Your task to perform on an android device: Open internet settings Image 0: 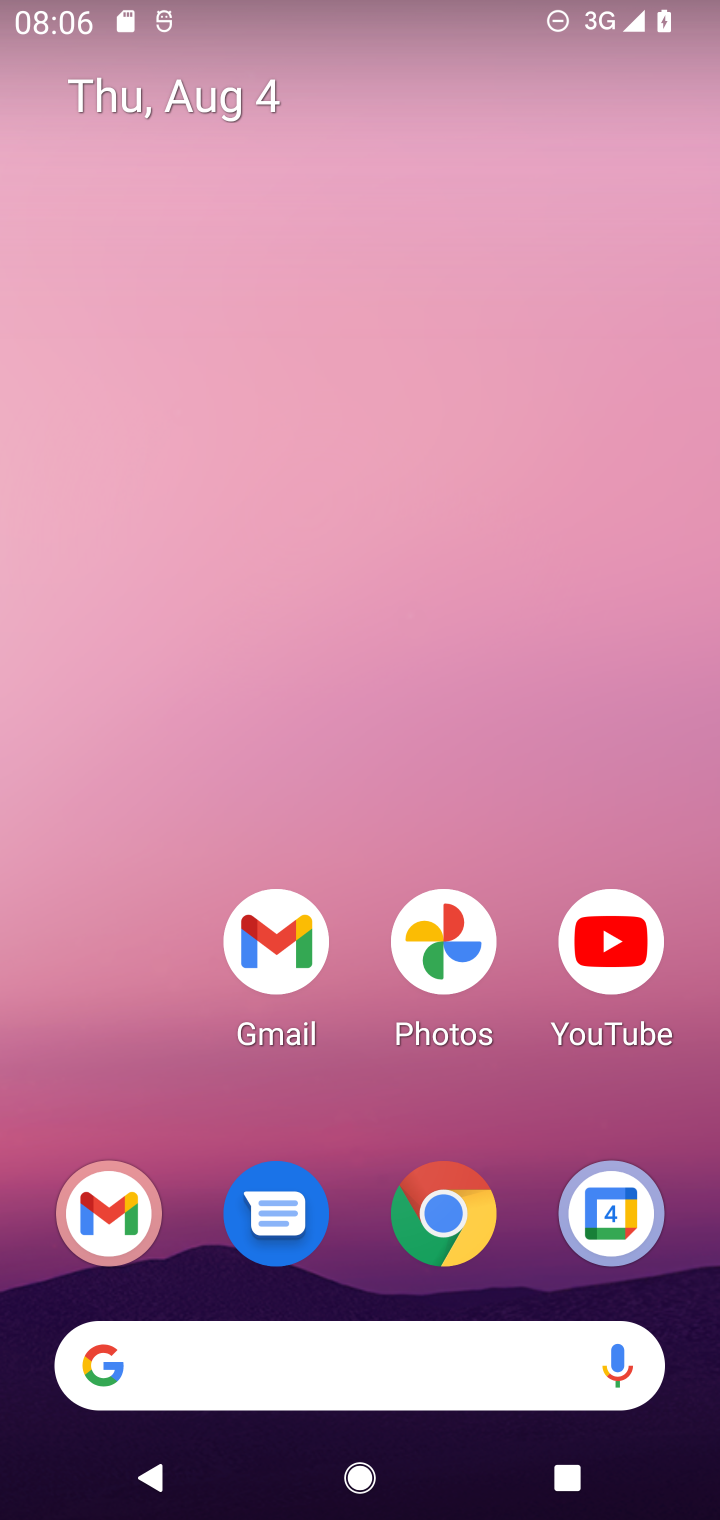
Step 0: press home button
Your task to perform on an android device: Open internet settings Image 1: 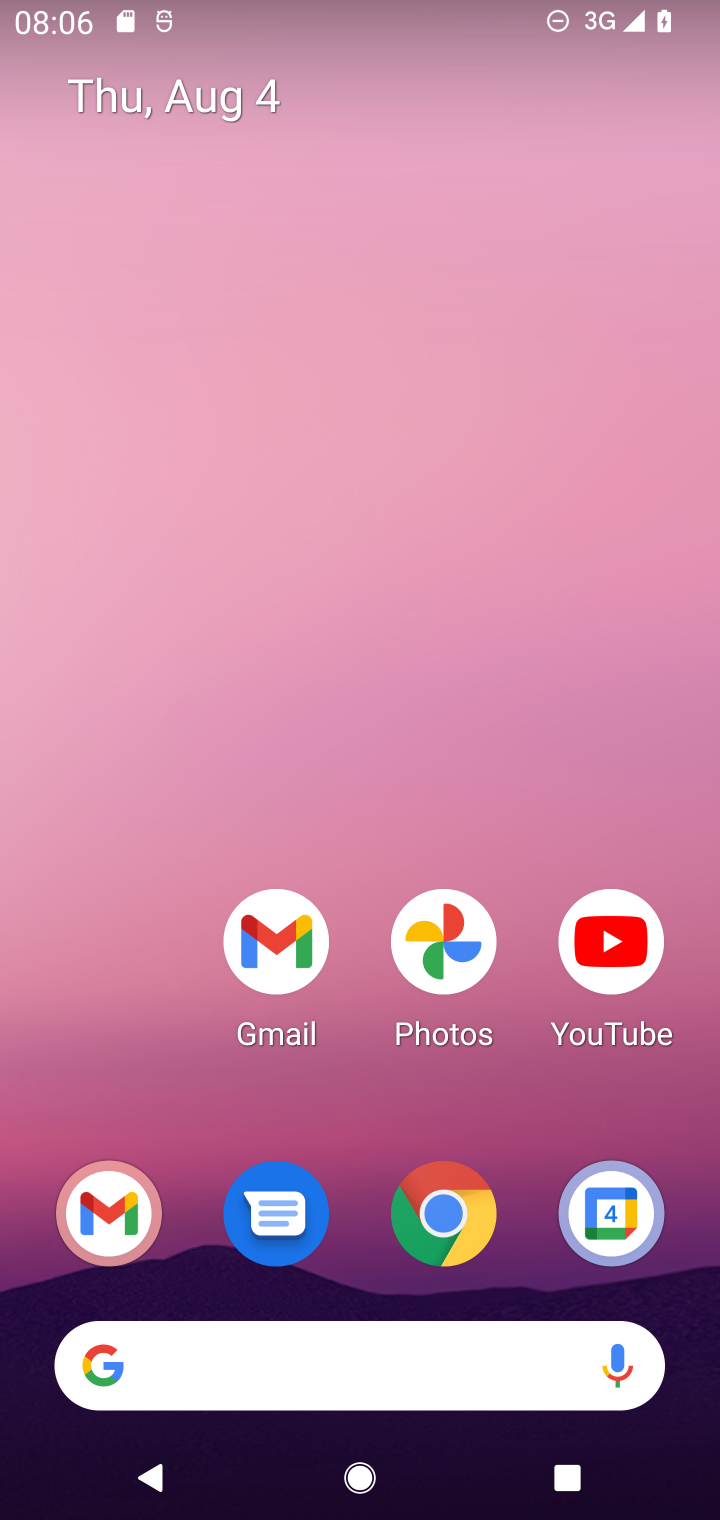
Step 1: drag from (173, 1114) to (139, 424)
Your task to perform on an android device: Open internet settings Image 2: 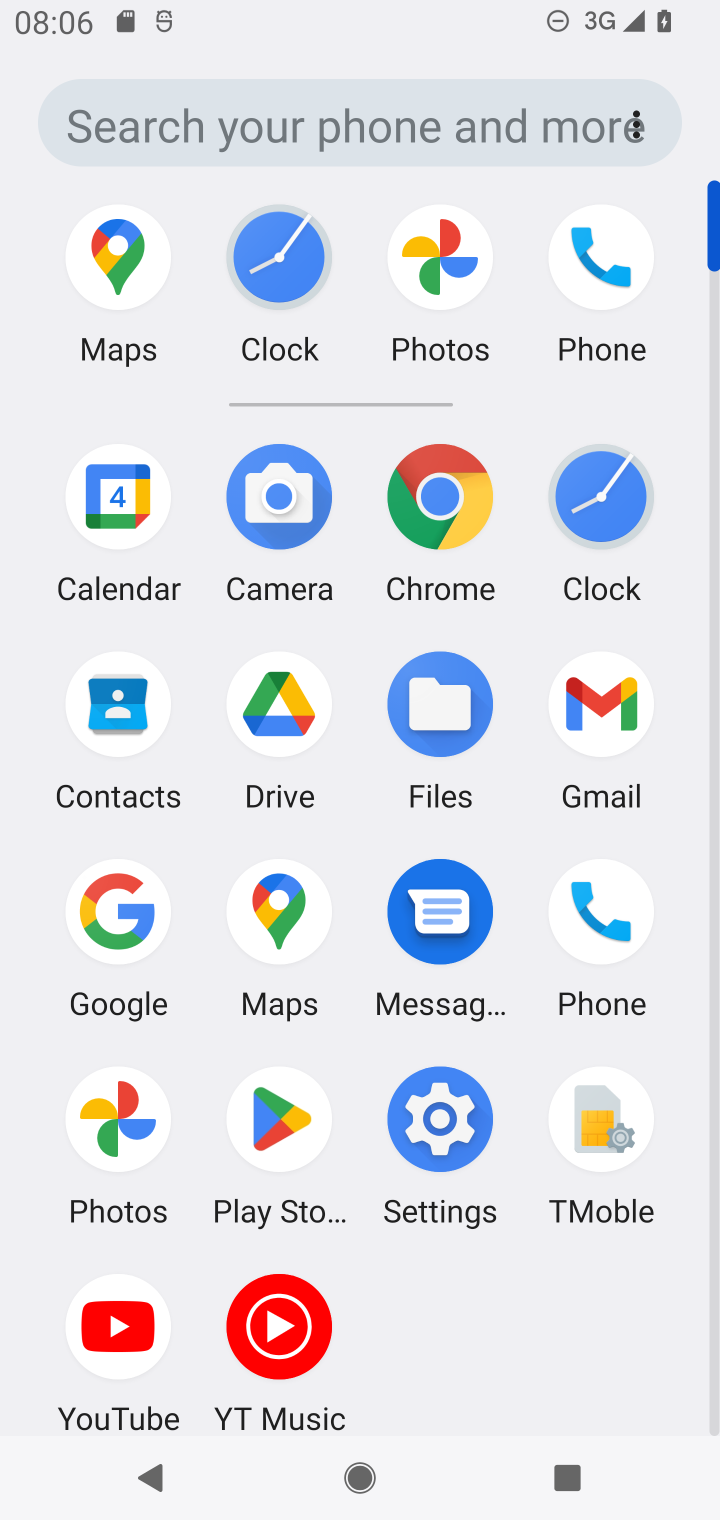
Step 2: click (443, 1126)
Your task to perform on an android device: Open internet settings Image 3: 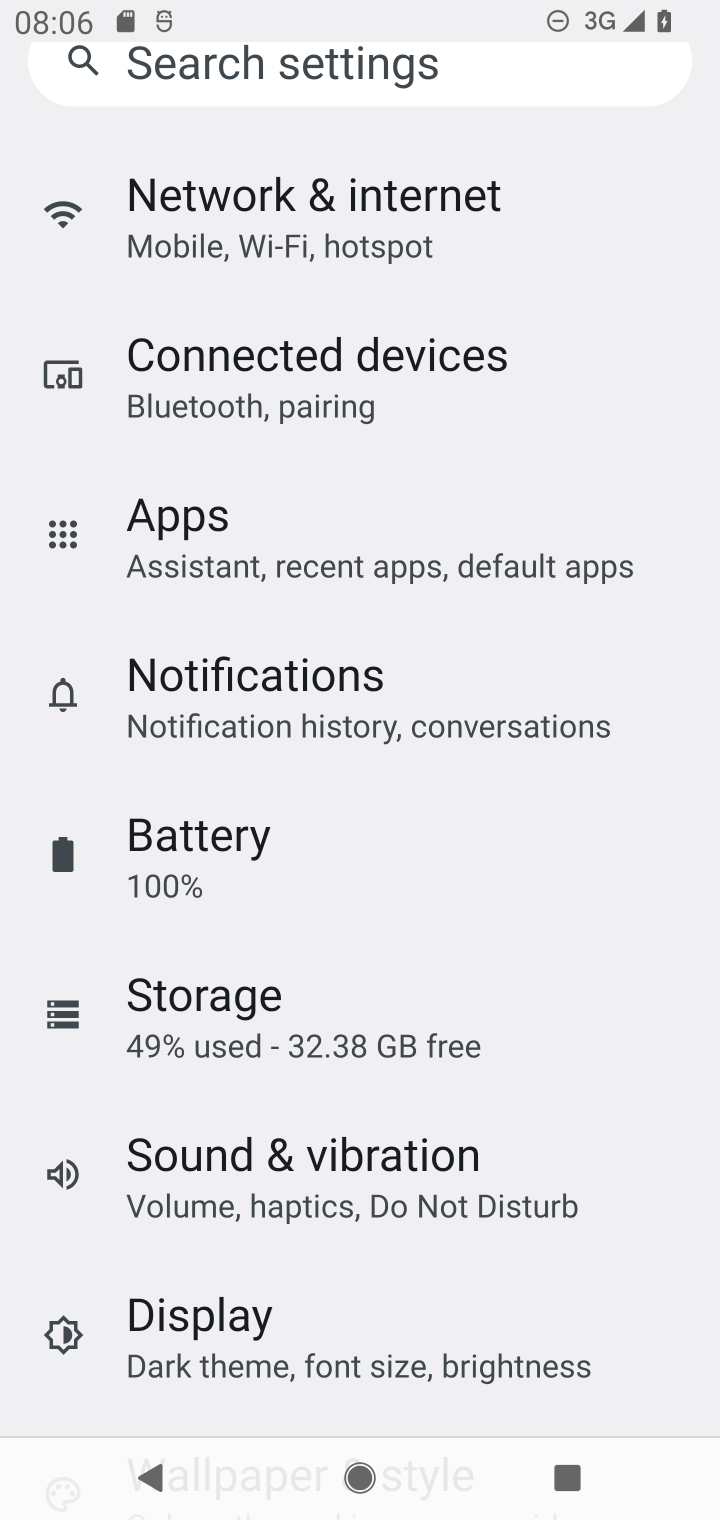
Step 3: drag from (630, 1280) to (625, 959)
Your task to perform on an android device: Open internet settings Image 4: 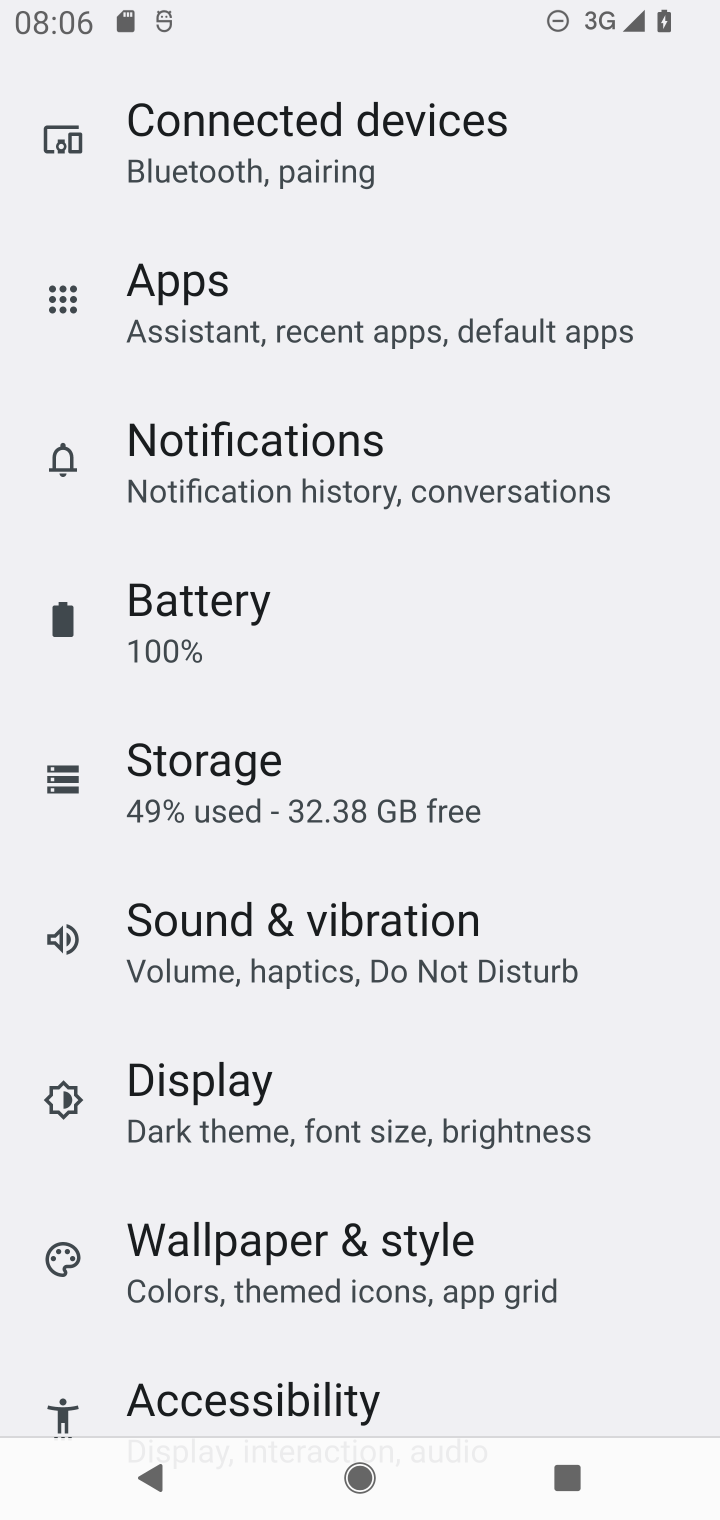
Step 4: drag from (644, 1351) to (647, 1046)
Your task to perform on an android device: Open internet settings Image 5: 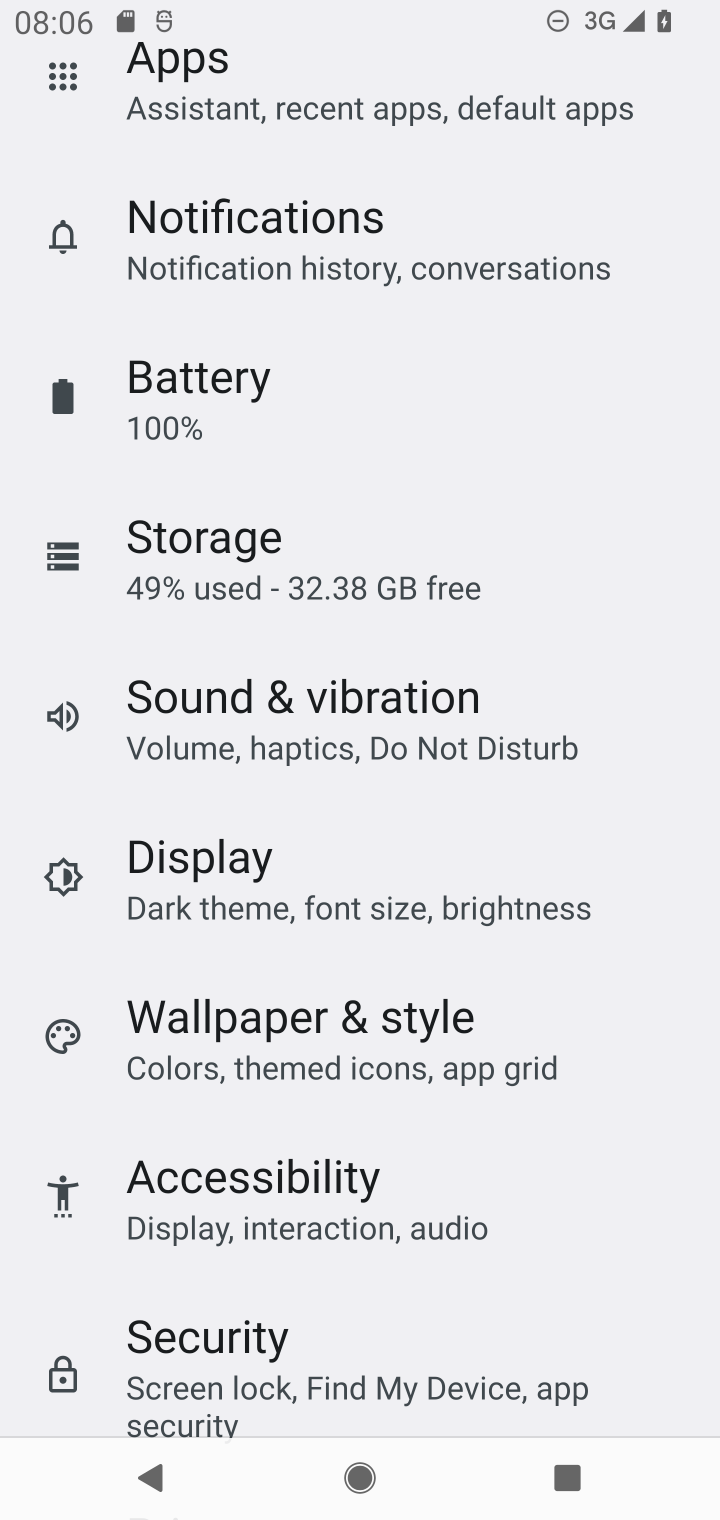
Step 5: drag from (624, 1212) to (628, 910)
Your task to perform on an android device: Open internet settings Image 6: 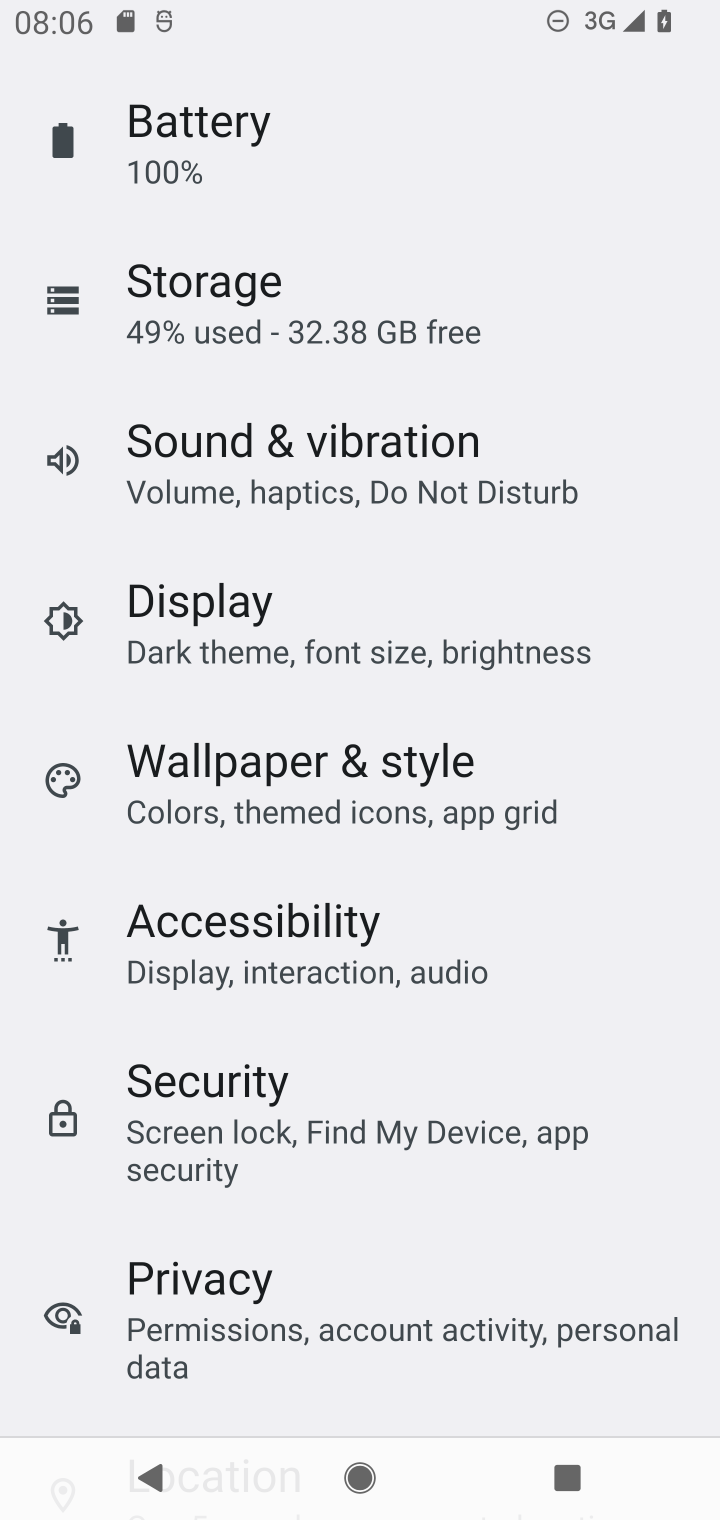
Step 6: drag from (563, 1252) to (580, 859)
Your task to perform on an android device: Open internet settings Image 7: 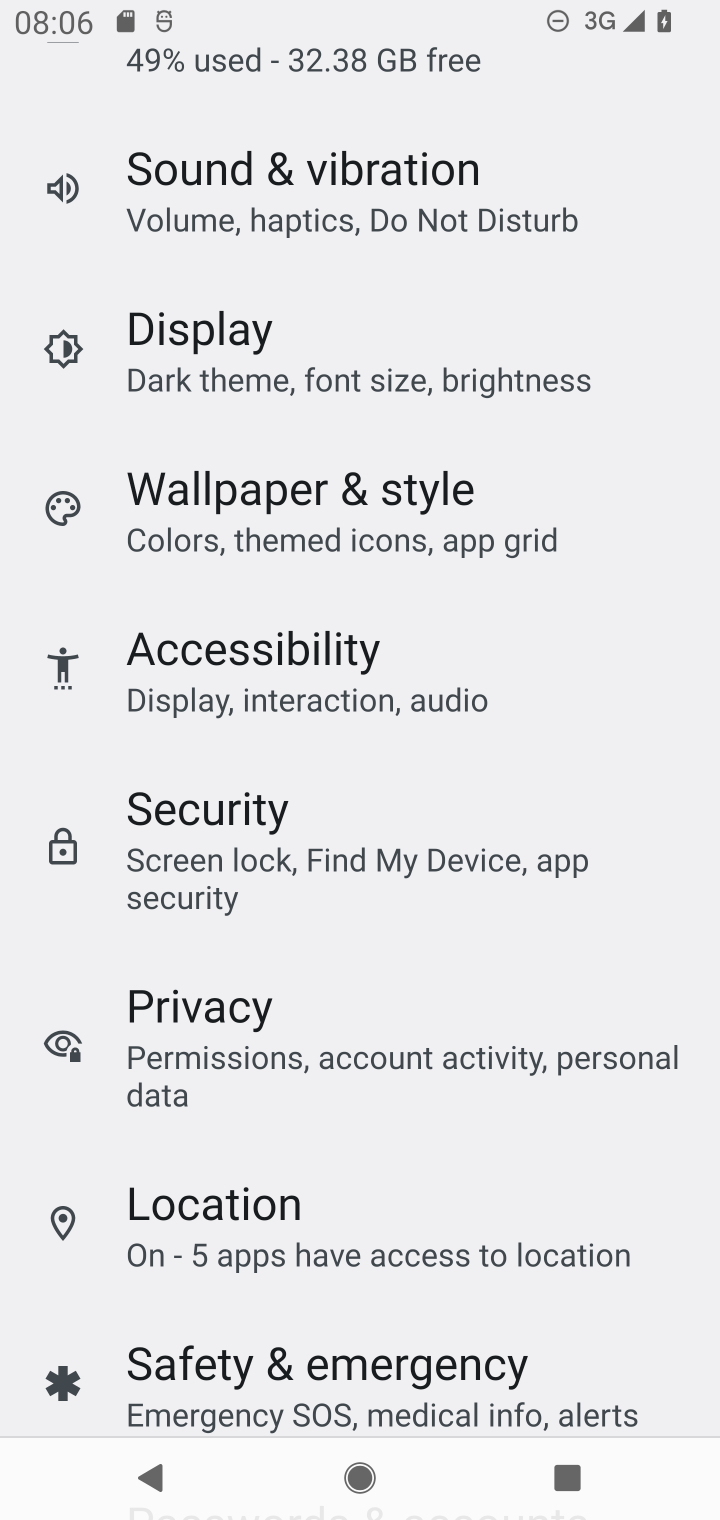
Step 7: drag from (632, 726) to (642, 1012)
Your task to perform on an android device: Open internet settings Image 8: 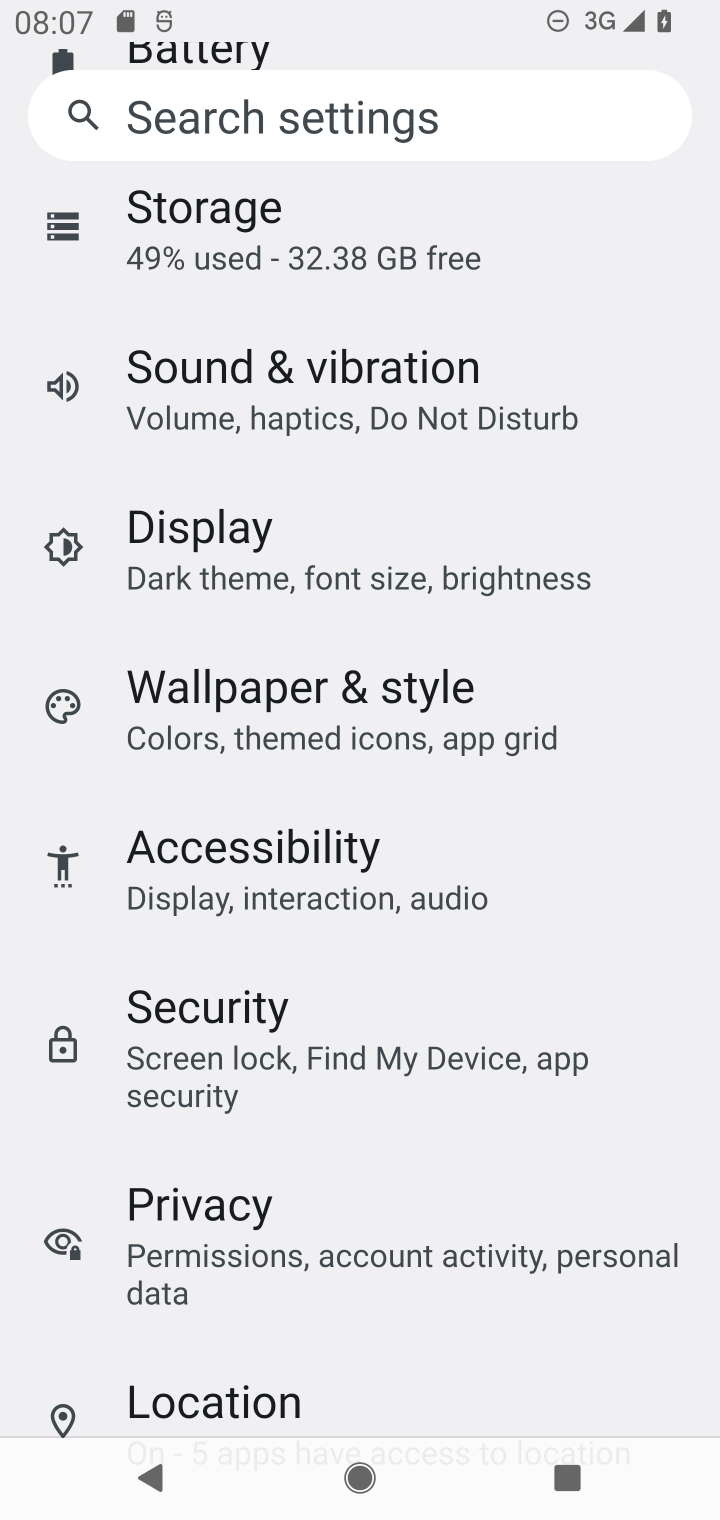
Step 8: drag from (647, 664) to (680, 1041)
Your task to perform on an android device: Open internet settings Image 9: 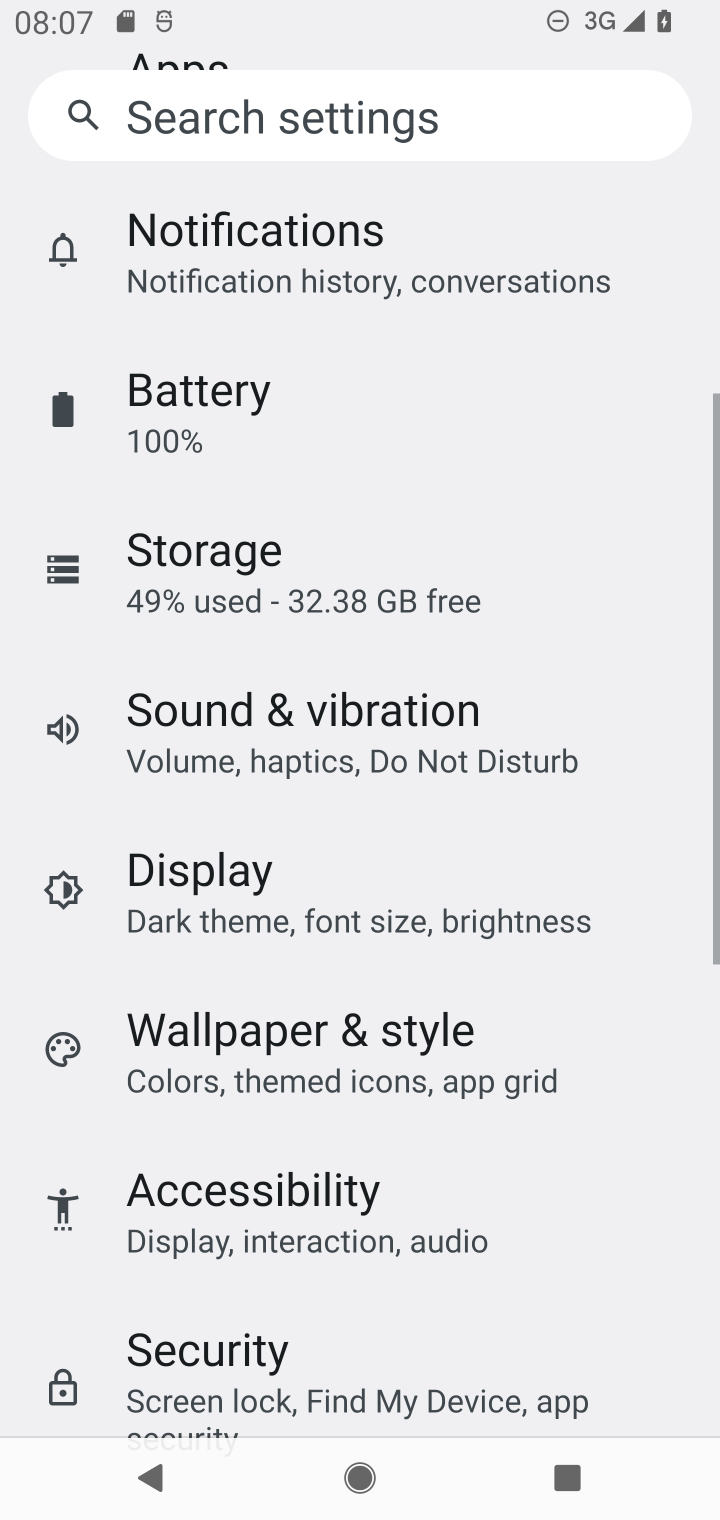
Step 9: drag from (631, 521) to (642, 934)
Your task to perform on an android device: Open internet settings Image 10: 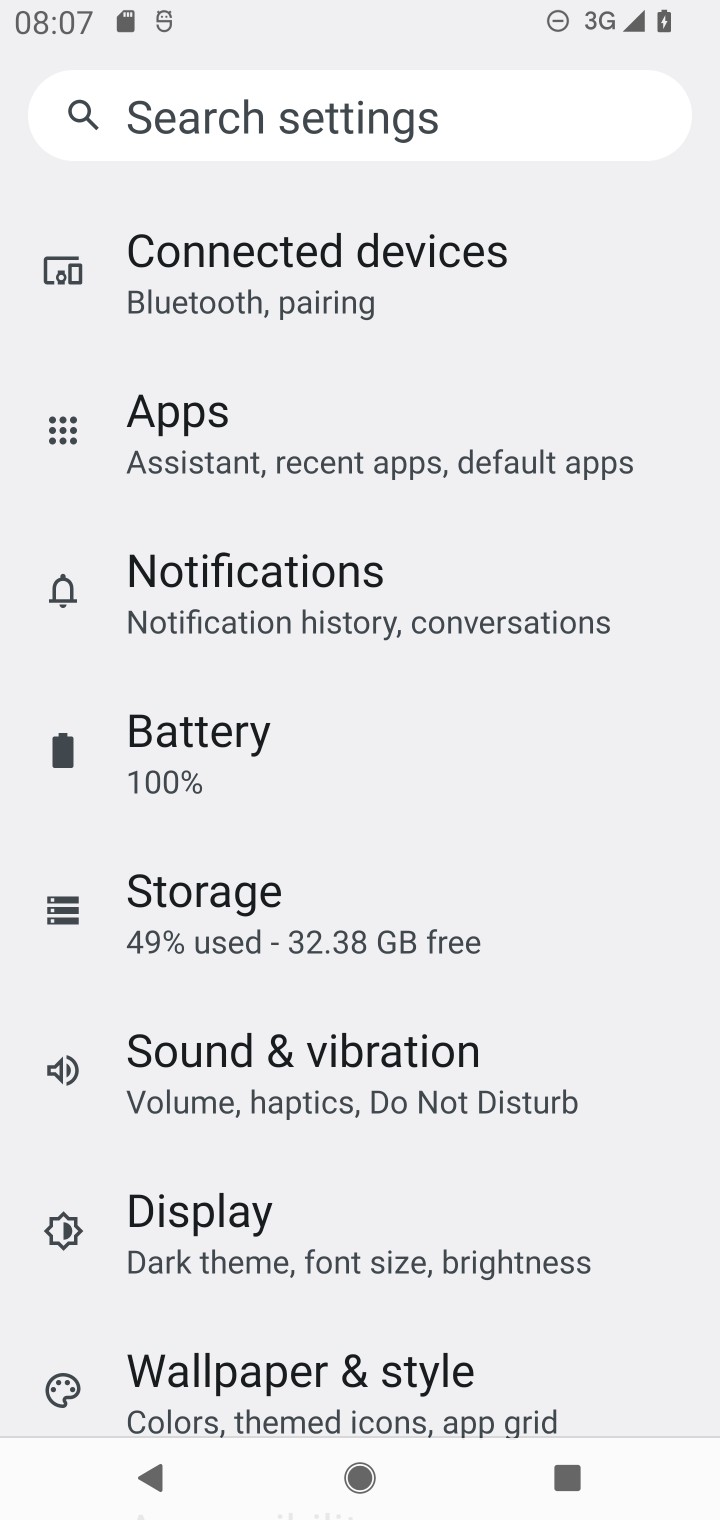
Step 10: drag from (647, 427) to (656, 784)
Your task to perform on an android device: Open internet settings Image 11: 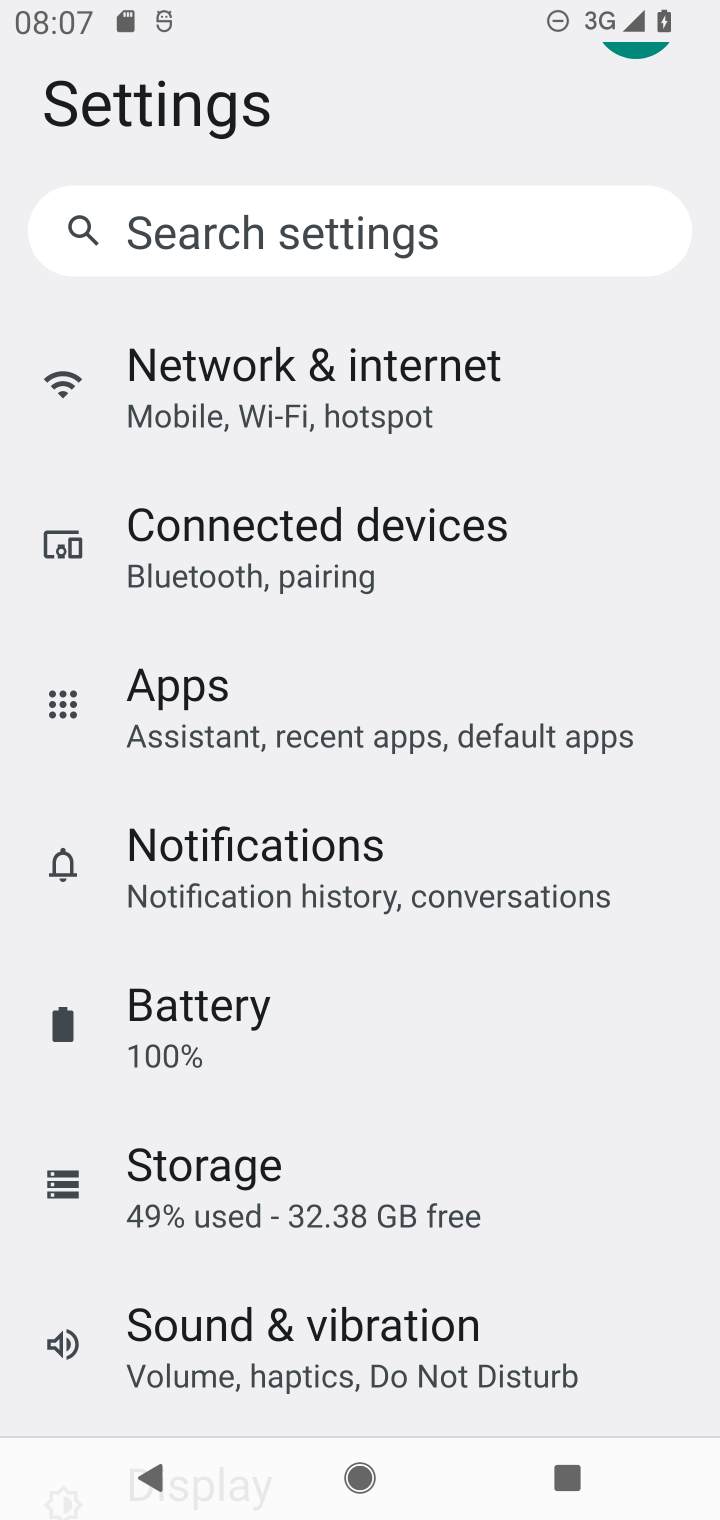
Step 11: drag from (597, 406) to (598, 776)
Your task to perform on an android device: Open internet settings Image 12: 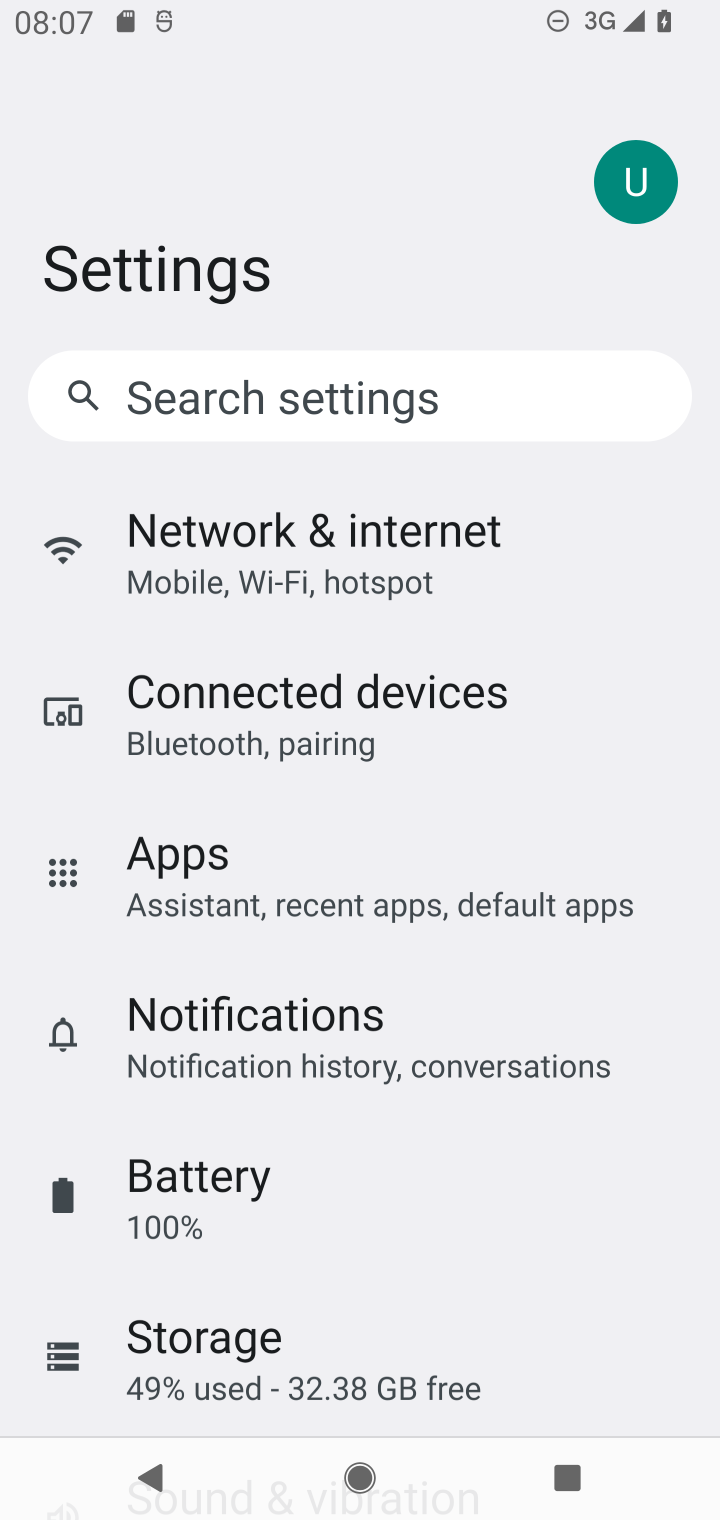
Step 12: click (521, 534)
Your task to perform on an android device: Open internet settings Image 13: 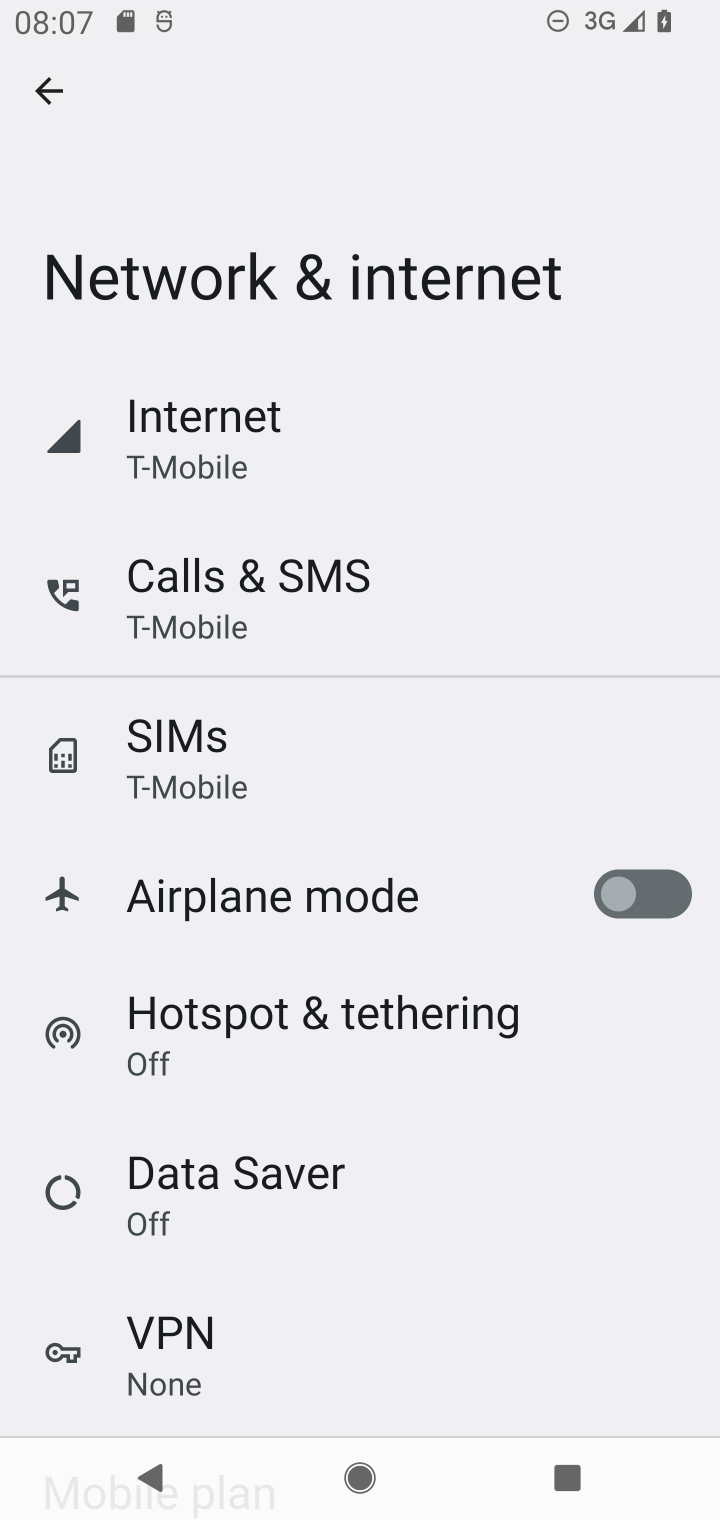
Step 13: task complete